Your task to perform on an android device: Open Google Chrome Image 0: 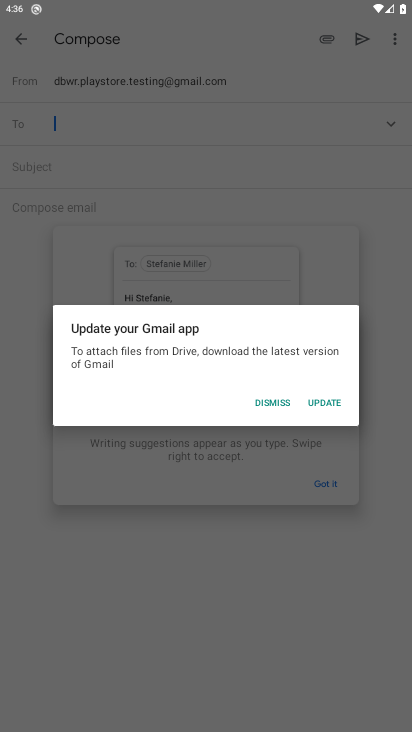
Step 0: press home button
Your task to perform on an android device: Open Google Chrome Image 1: 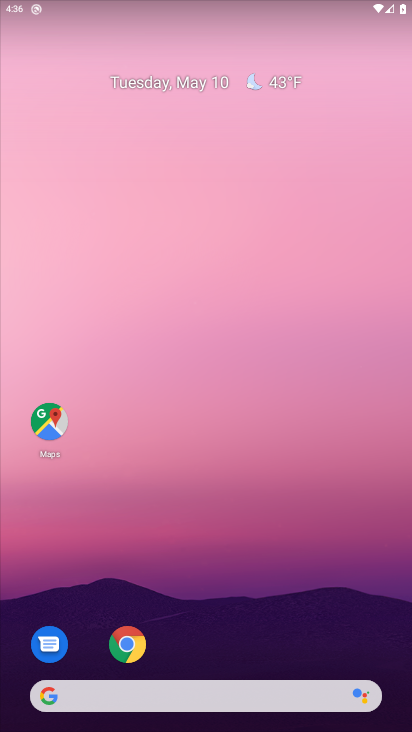
Step 1: click (128, 649)
Your task to perform on an android device: Open Google Chrome Image 2: 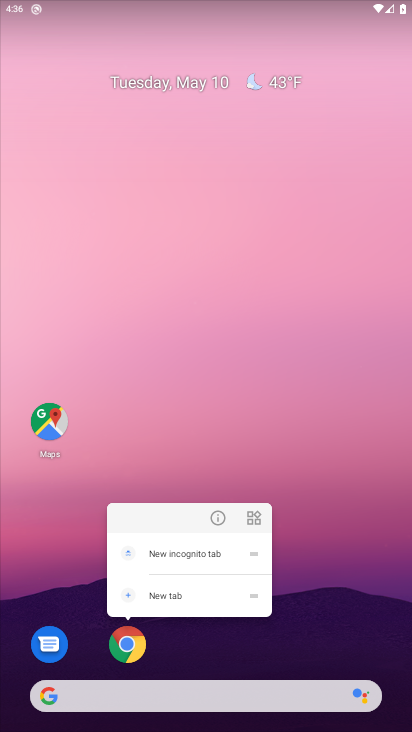
Step 2: click (133, 655)
Your task to perform on an android device: Open Google Chrome Image 3: 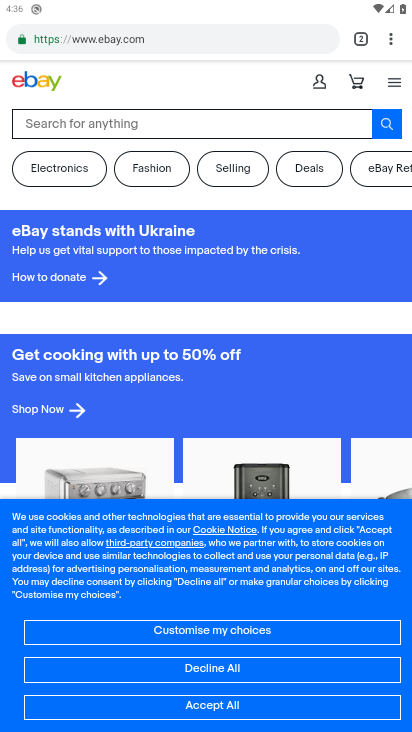
Step 3: click (371, 37)
Your task to perform on an android device: Open Google Chrome Image 4: 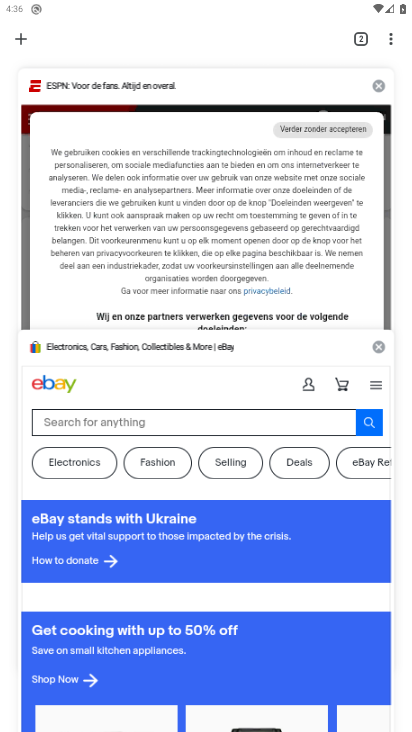
Step 4: click (380, 90)
Your task to perform on an android device: Open Google Chrome Image 5: 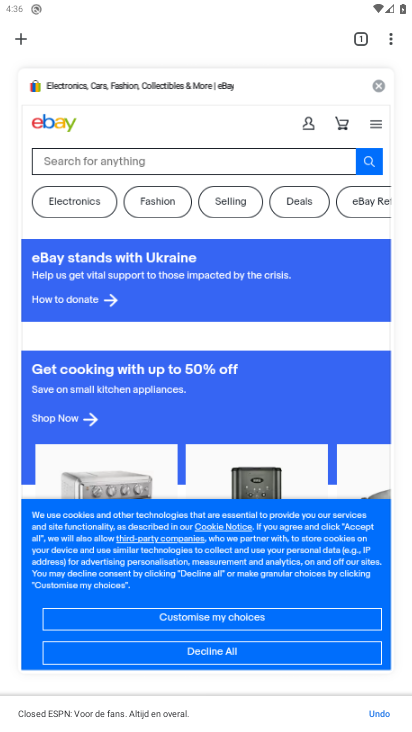
Step 5: click (375, 81)
Your task to perform on an android device: Open Google Chrome Image 6: 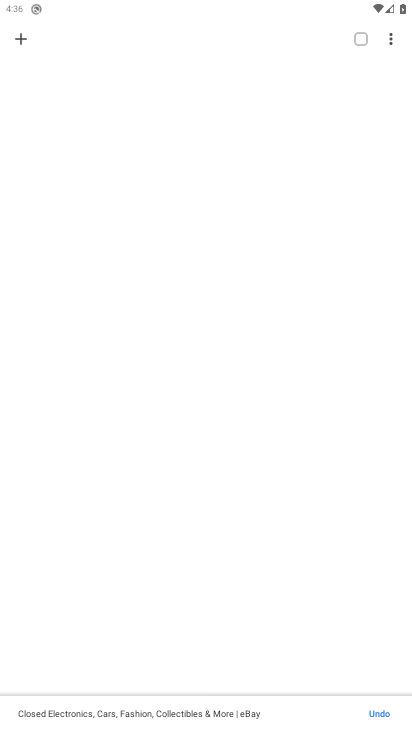
Step 6: click (21, 43)
Your task to perform on an android device: Open Google Chrome Image 7: 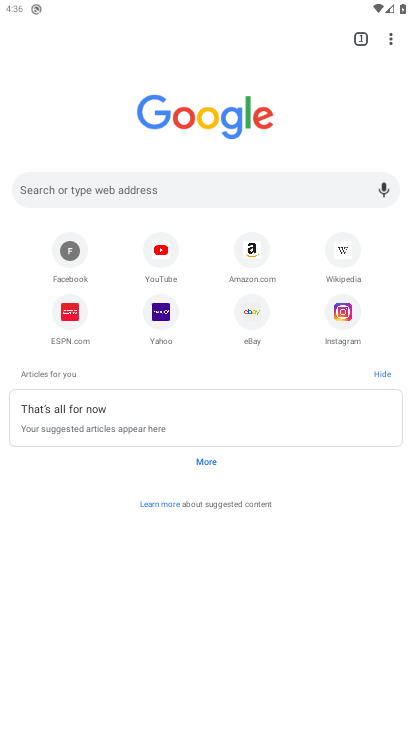
Step 7: task complete